Your task to perform on an android device: Clear the cart on ebay.com. Search for beats solo 3 on ebay.com, select the first entry, and add it to the cart. Image 0: 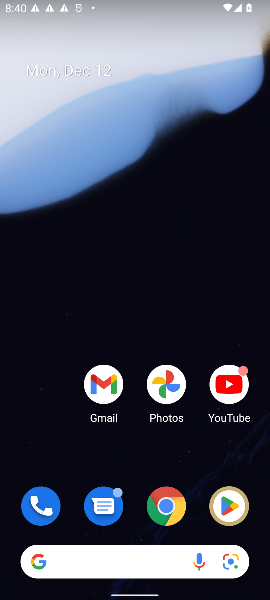
Step 0: click (124, 572)
Your task to perform on an android device: Clear the cart on ebay.com. Search for beats solo 3 on ebay.com, select the first entry, and add it to the cart. Image 1: 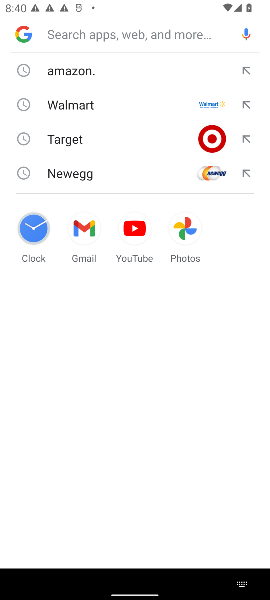
Step 1: type "ebay"
Your task to perform on an android device: Clear the cart on ebay.com. Search for beats solo 3 on ebay.com, select the first entry, and add it to the cart. Image 2: 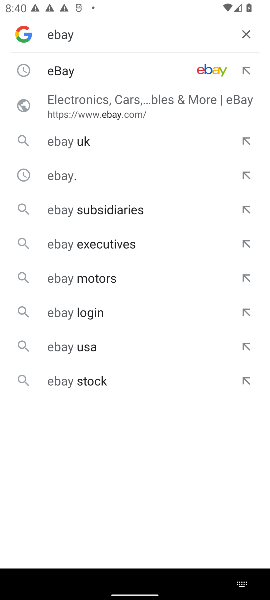
Step 2: click (105, 77)
Your task to perform on an android device: Clear the cart on ebay.com. Search for beats solo 3 on ebay.com, select the first entry, and add it to the cart. Image 3: 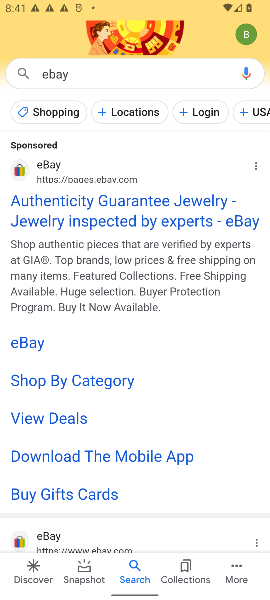
Step 3: click (14, 350)
Your task to perform on an android device: Clear the cart on ebay.com. Search for beats solo 3 on ebay.com, select the first entry, and add it to the cart. Image 4: 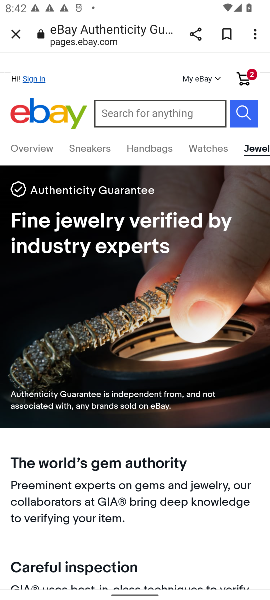
Step 4: click (251, 79)
Your task to perform on an android device: Clear the cart on ebay.com. Search for beats solo 3 on ebay.com, select the first entry, and add it to the cart. Image 5: 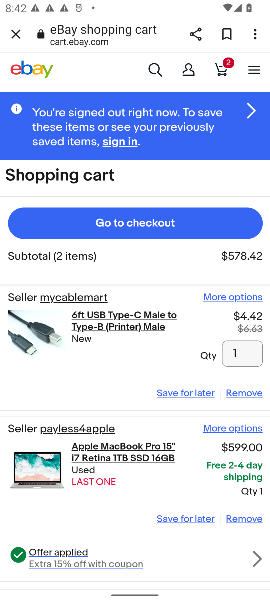
Step 5: click (251, 390)
Your task to perform on an android device: Clear the cart on ebay.com. Search for beats solo 3 on ebay.com, select the first entry, and add it to the cart. Image 6: 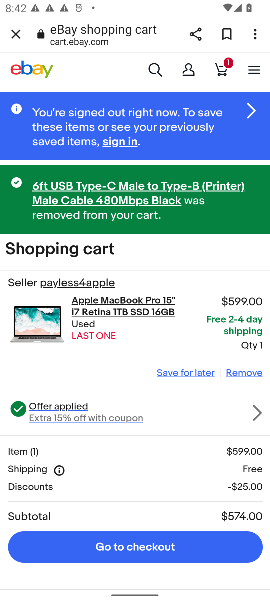
Step 6: click (246, 376)
Your task to perform on an android device: Clear the cart on ebay.com. Search for beats solo 3 on ebay.com, select the first entry, and add it to the cart. Image 7: 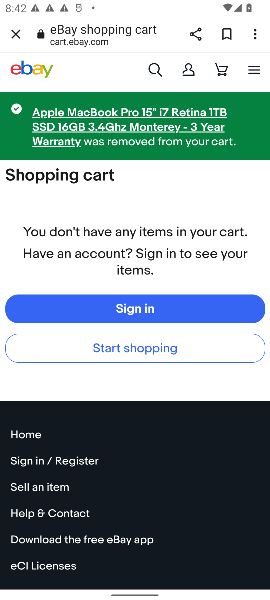
Step 7: click (158, 80)
Your task to perform on an android device: Clear the cart on ebay.com. Search for beats solo 3 on ebay.com, select the first entry, and add it to the cart. Image 8: 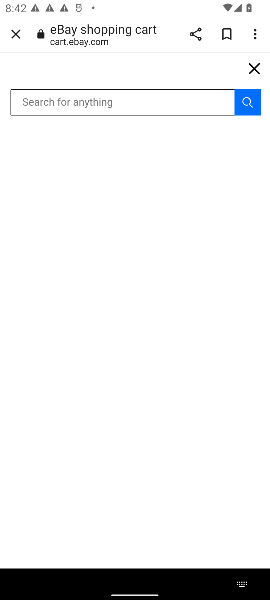
Step 8: type "beat solo 3"
Your task to perform on an android device: Clear the cart on ebay.com. Search for beats solo 3 on ebay.com, select the first entry, and add it to the cart. Image 9: 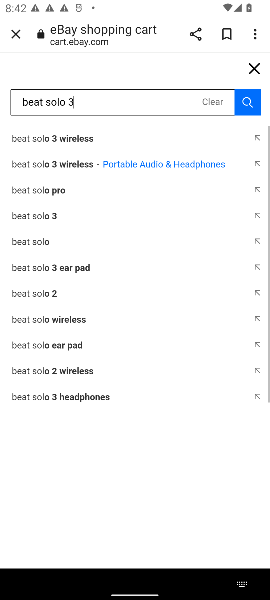
Step 9: click (37, 184)
Your task to perform on an android device: Clear the cart on ebay.com. Search for beats solo 3 on ebay.com, select the first entry, and add it to the cart. Image 10: 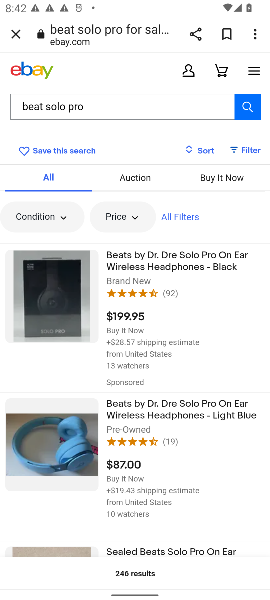
Step 10: task complete